Your task to perform on an android device: Open Chrome and go to the settings page Image 0: 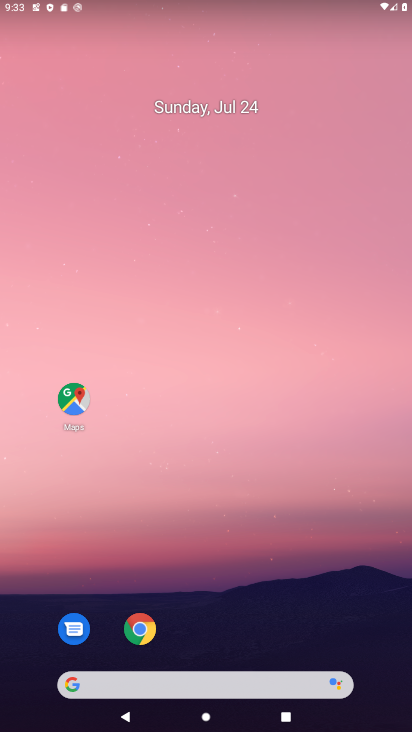
Step 0: click (153, 618)
Your task to perform on an android device: Open Chrome and go to the settings page Image 1: 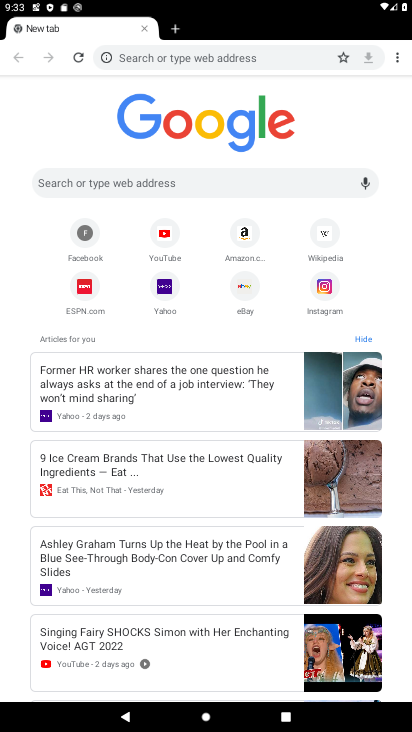
Step 1: click (400, 63)
Your task to perform on an android device: Open Chrome and go to the settings page Image 2: 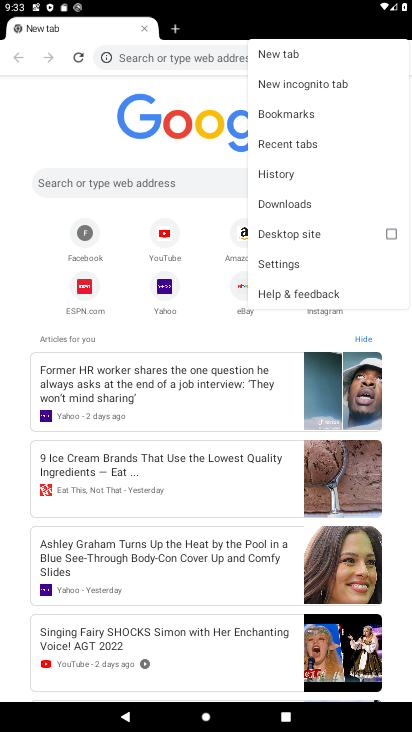
Step 2: click (280, 268)
Your task to perform on an android device: Open Chrome and go to the settings page Image 3: 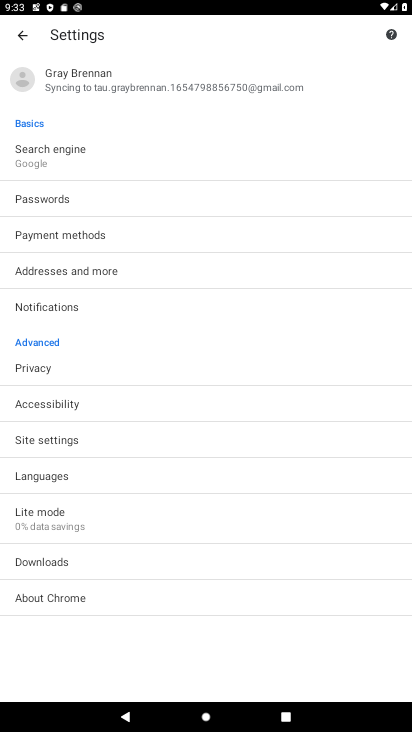
Step 3: task complete